Your task to perform on an android device: star an email in the gmail app Image 0: 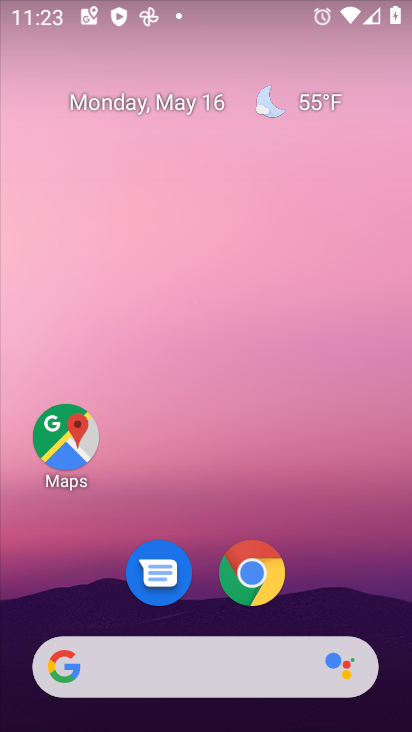
Step 0: drag from (341, 564) to (281, 67)
Your task to perform on an android device: star an email in the gmail app Image 1: 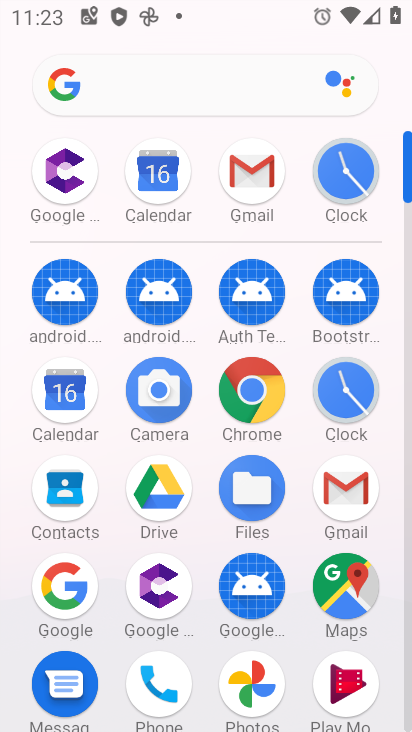
Step 1: click (329, 489)
Your task to perform on an android device: star an email in the gmail app Image 2: 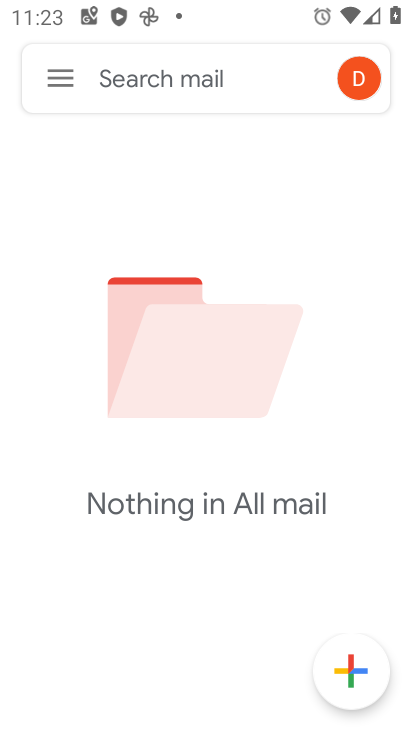
Step 2: task complete